Your task to perform on an android device: Open ESPN.com Image 0: 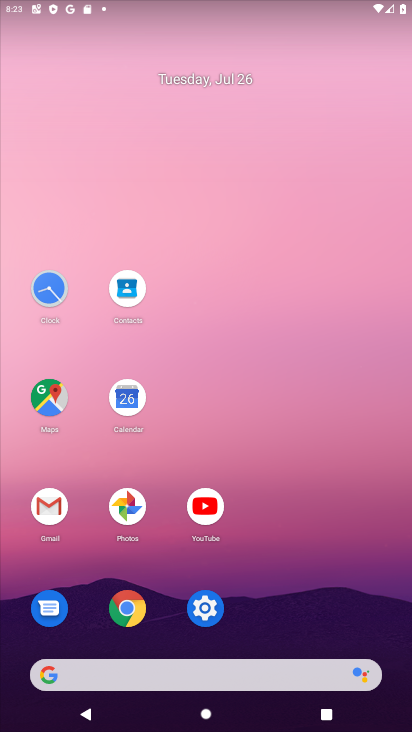
Step 0: click (130, 605)
Your task to perform on an android device: Open ESPN.com Image 1: 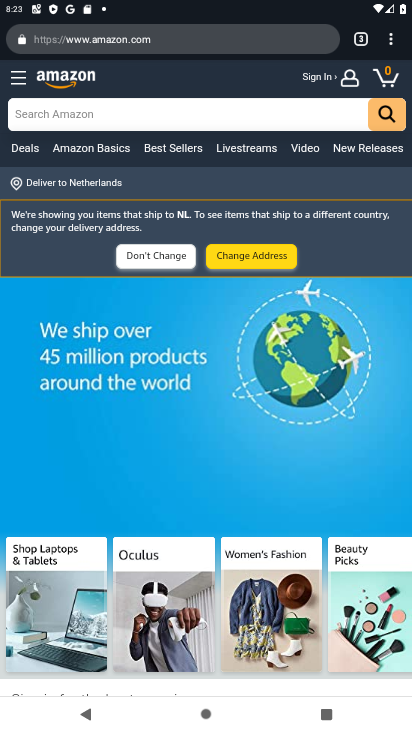
Step 1: click (392, 40)
Your task to perform on an android device: Open ESPN.com Image 2: 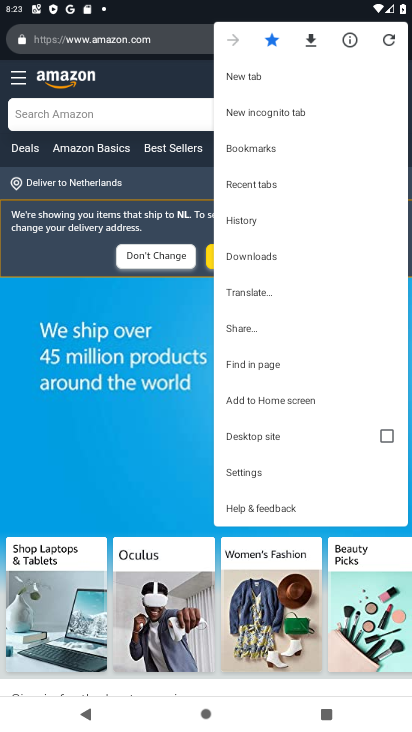
Step 2: click (240, 74)
Your task to perform on an android device: Open ESPN.com Image 3: 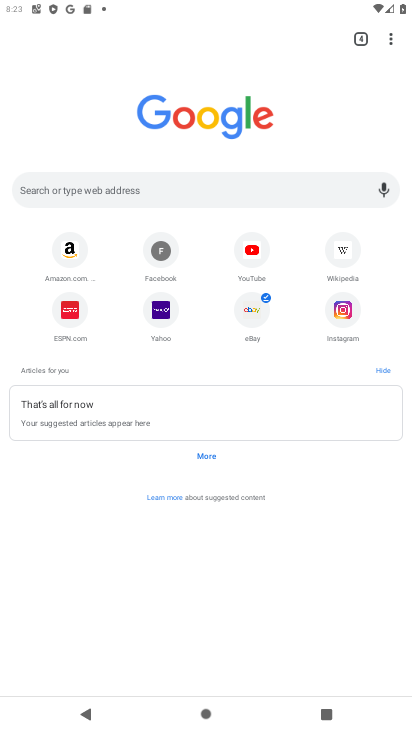
Step 3: click (58, 316)
Your task to perform on an android device: Open ESPN.com Image 4: 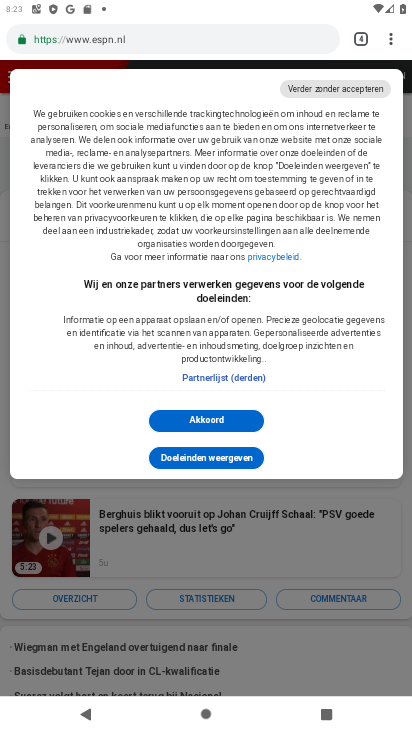
Step 4: task complete